Your task to perform on an android device: Go to settings Image 0: 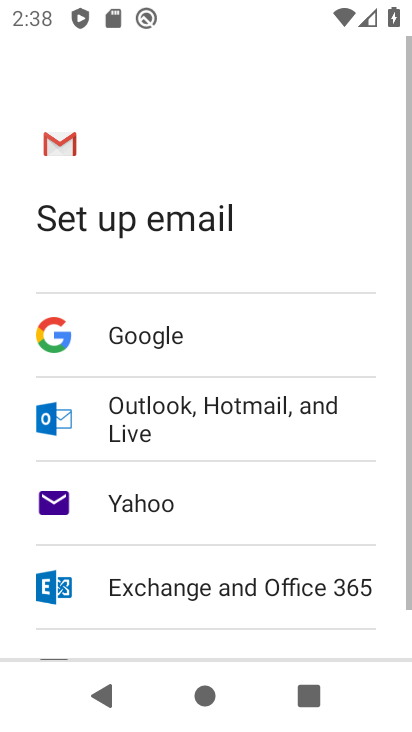
Step 0: drag from (305, 525) to (370, 486)
Your task to perform on an android device: Go to settings Image 1: 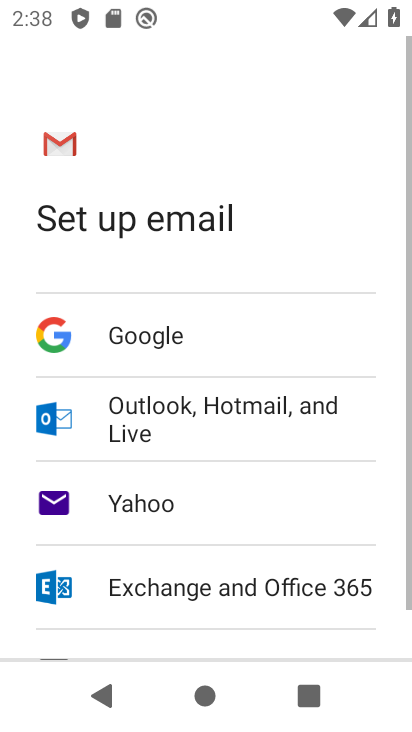
Step 1: press home button
Your task to perform on an android device: Go to settings Image 2: 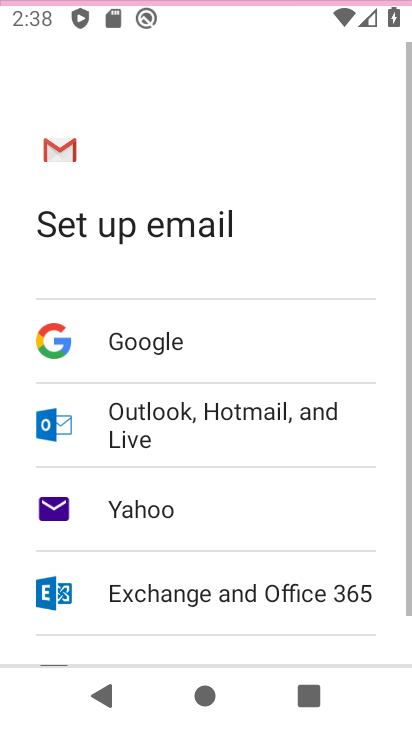
Step 2: drag from (370, 486) to (411, 483)
Your task to perform on an android device: Go to settings Image 3: 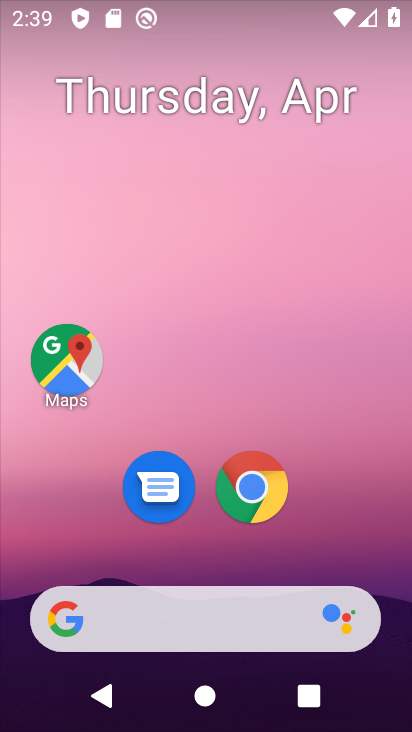
Step 3: drag from (361, 503) to (328, 23)
Your task to perform on an android device: Go to settings Image 4: 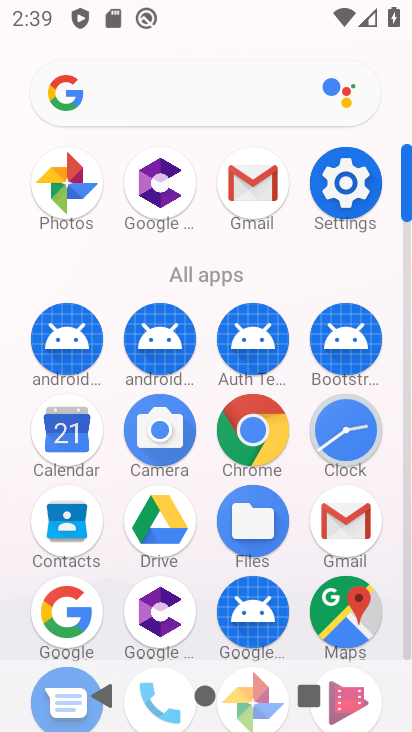
Step 4: click (344, 198)
Your task to perform on an android device: Go to settings Image 5: 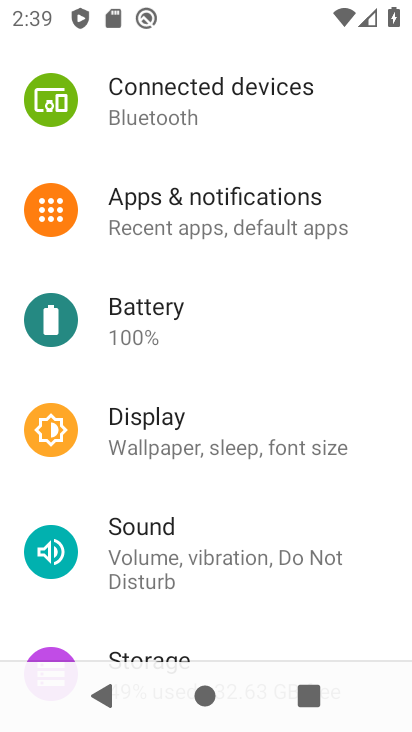
Step 5: task complete